Your task to perform on an android device: check google app version Image 0: 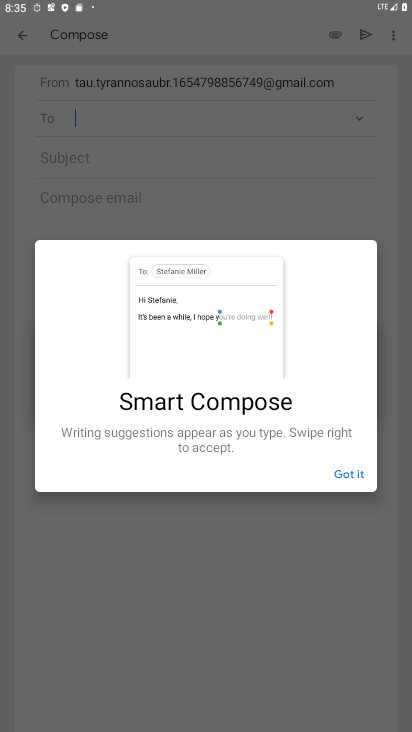
Step 0: press home button
Your task to perform on an android device: check google app version Image 1: 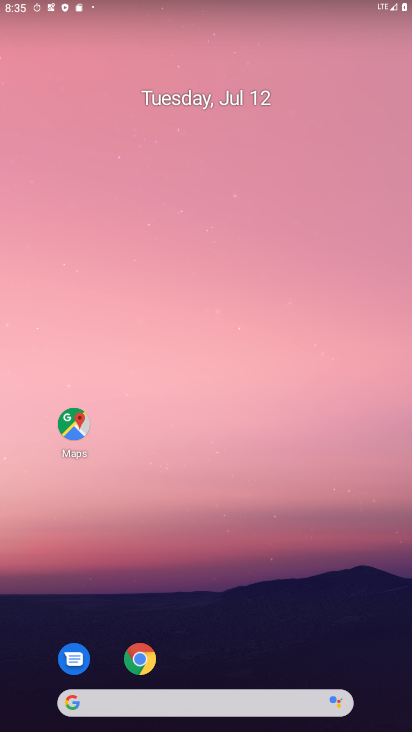
Step 1: drag from (385, 683) to (140, 3)
Your task to perform on an android device: check google app version Image 2: 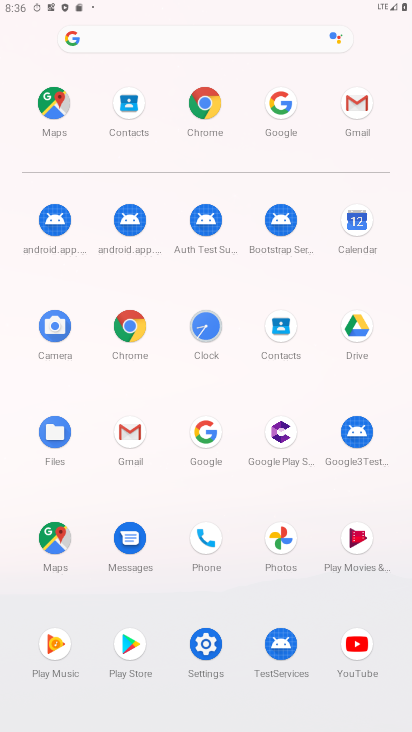
Step 2: click (207, 432)
Your task to perform on an android device: check google app version Image 3: 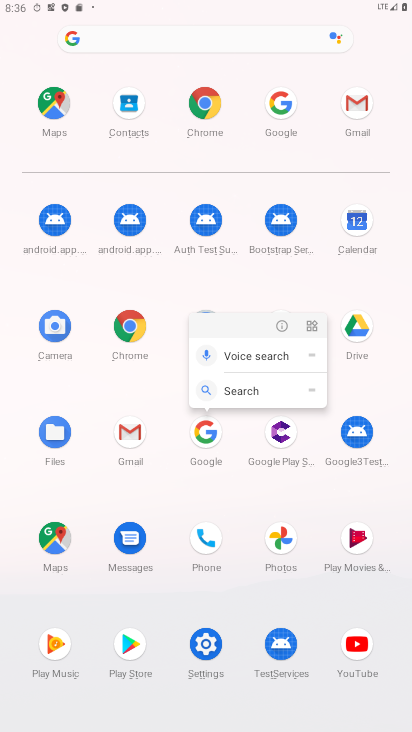
Step 3: click (285, 332)
Your task to perform on an android device: check google app version Image 4: 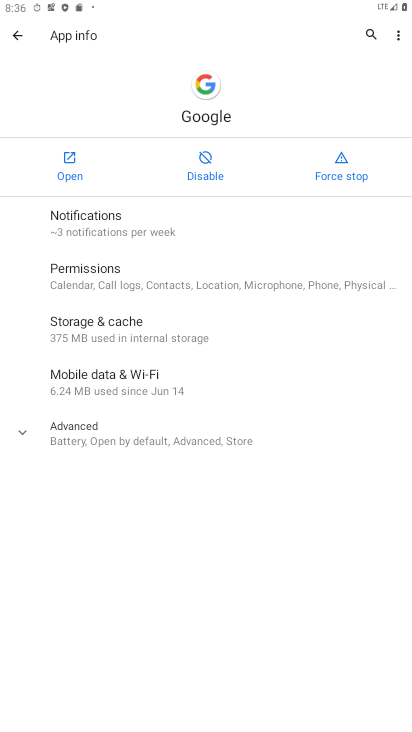
Step 4: drag from (189, 669) to (205, 411)
Your task to perform on an android device: check google app version Image 5: 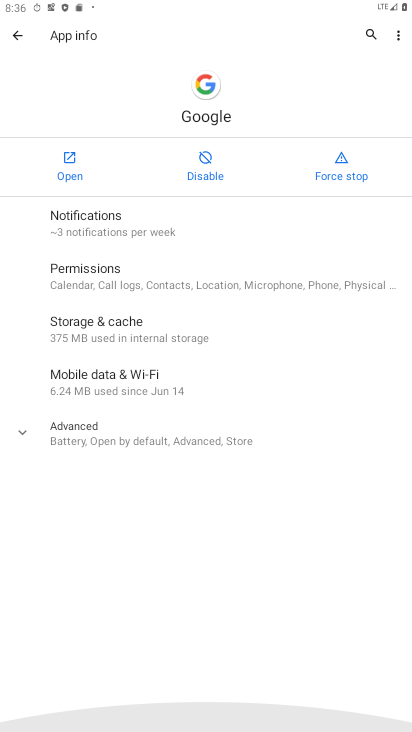
Step 5: click (136, 429)
Your task to perform on an android device: check google app version Image 6: 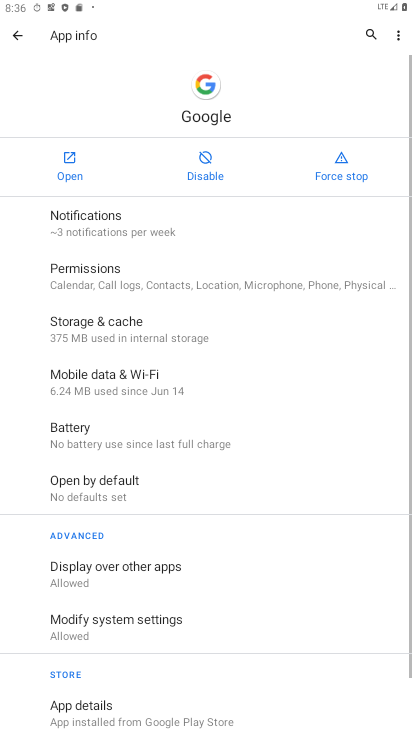
Step 6: task complete